Your task to perform on an android device: toggle pop-ups in chrome Image 0: 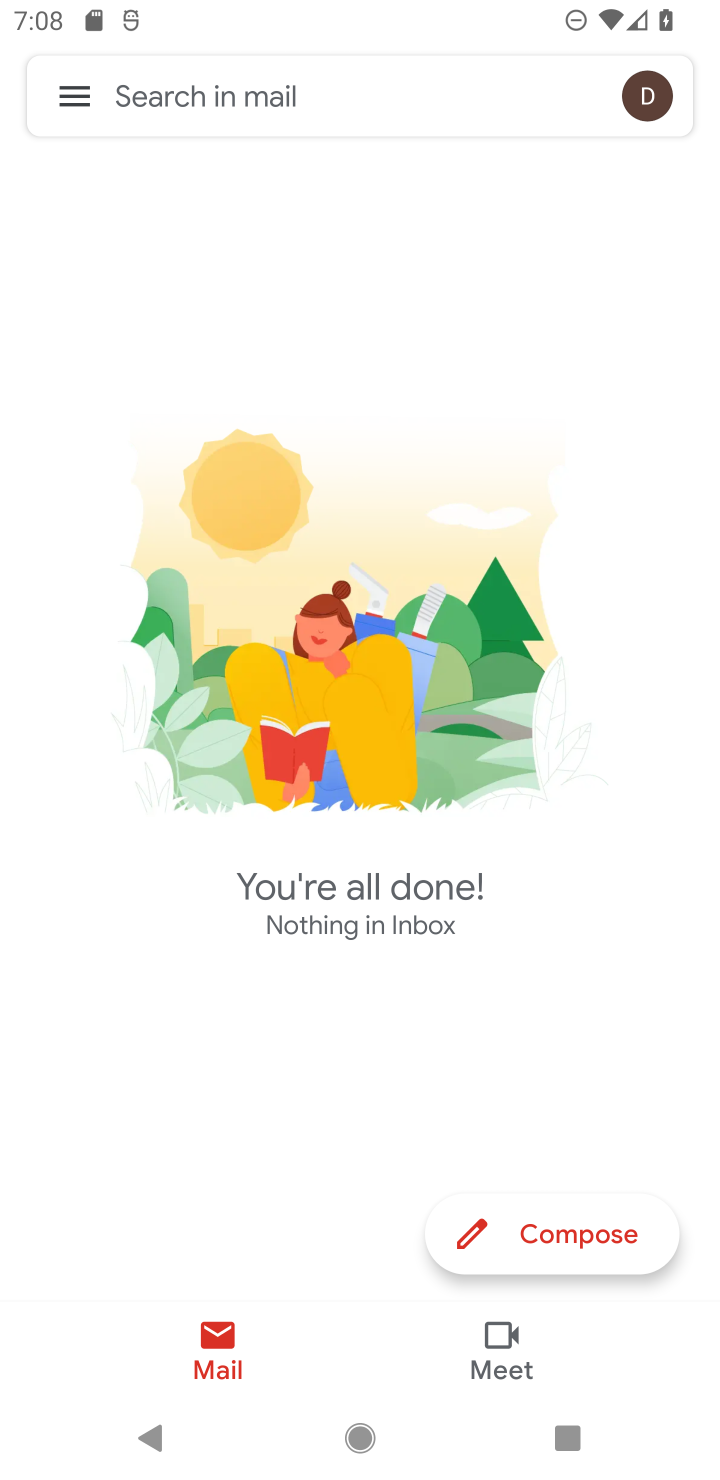
Step 0: press home button
Your task to perform on an android device: toggle pop-ups in chrome Image 1: 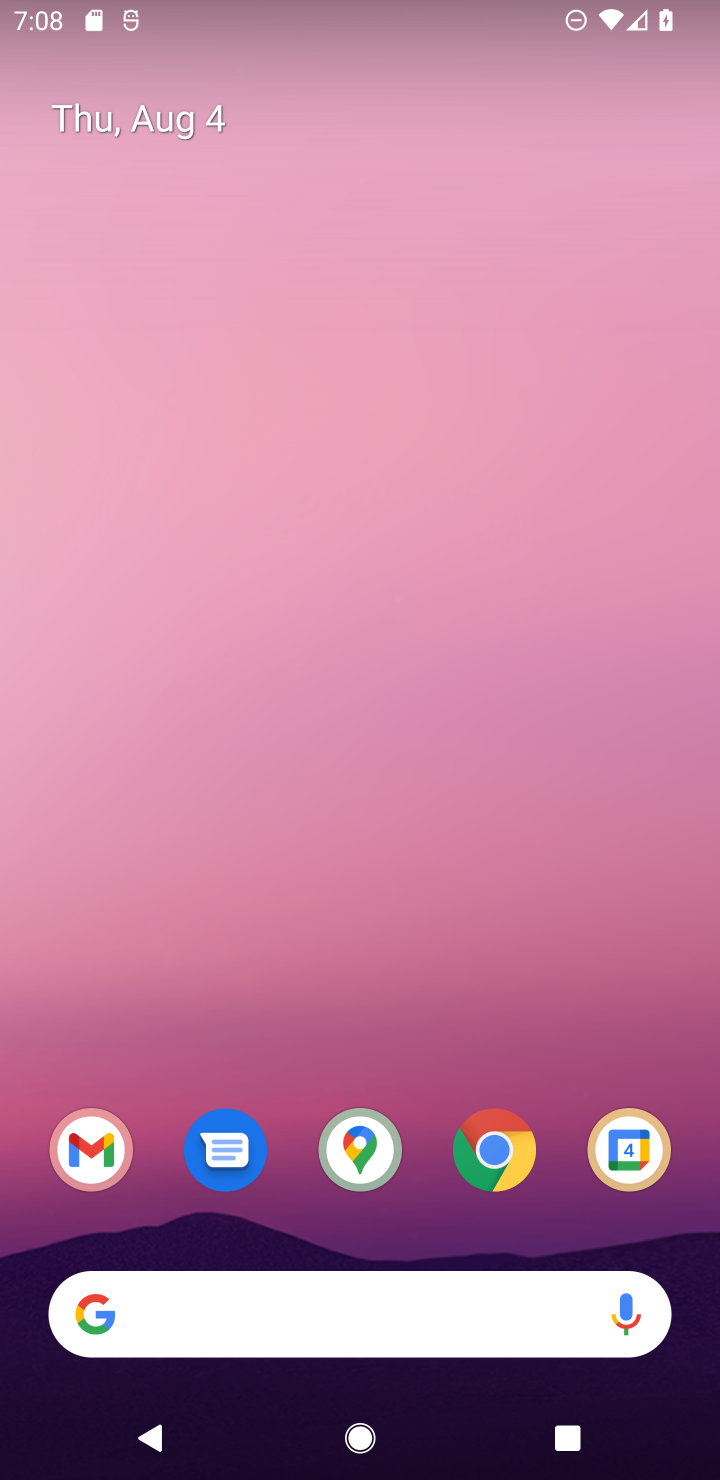
Step 1: drag from (378, 1120) to (539, 75)
Your task to perform on an android device: toggle pop-ups in chrome Image 2: 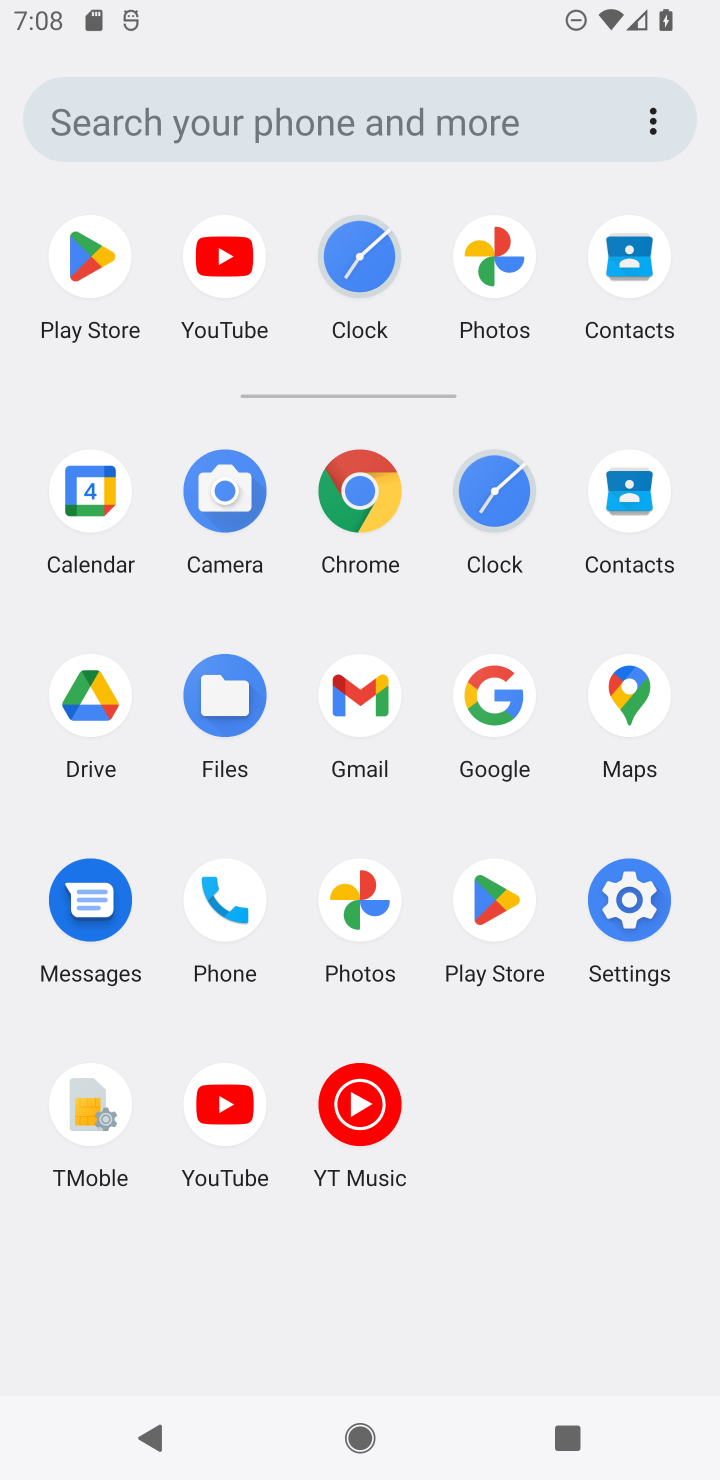
Step 2: click (362, 489)
Your task to perform on an android device: toggle pop-ups in chrome Image 3: 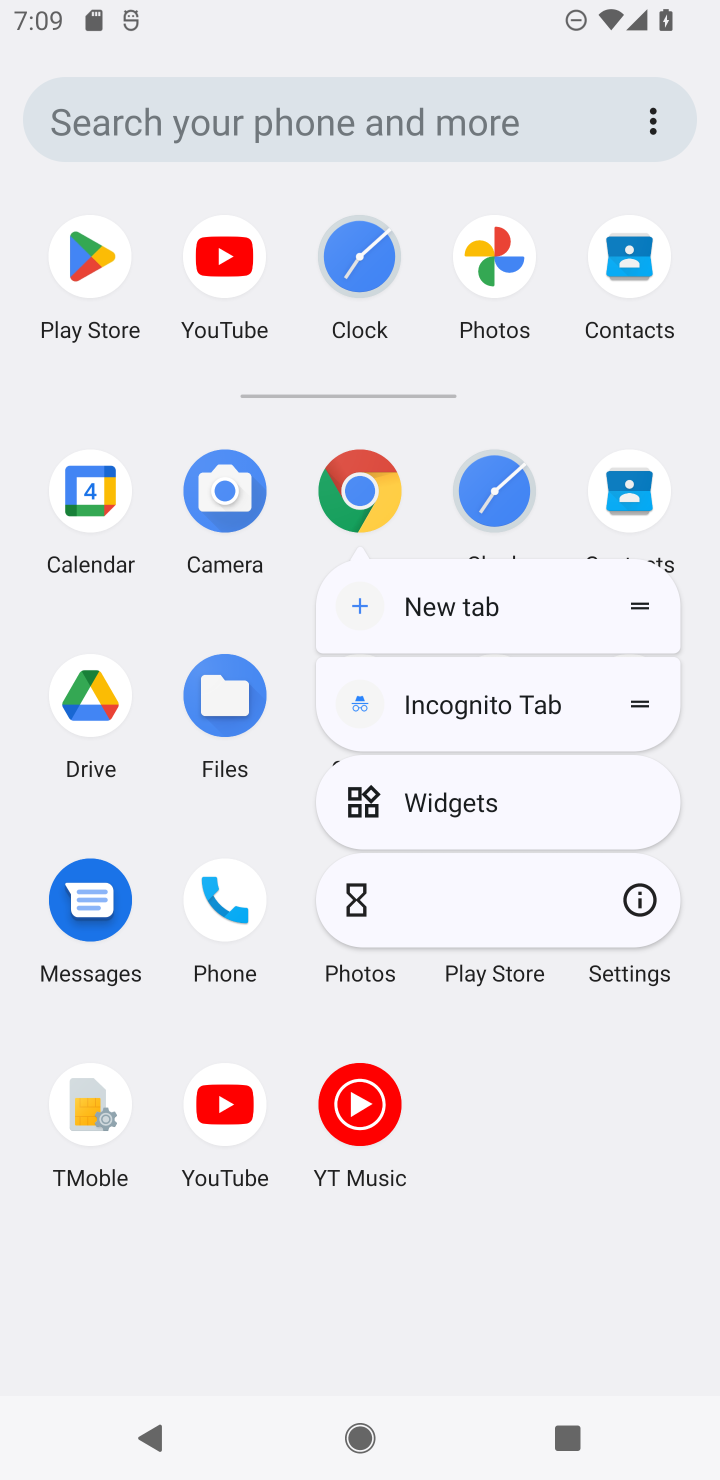
Step 3: click (362, 489)
Your task to perform on an android device: toggle pop-ups in chrome Image 4: 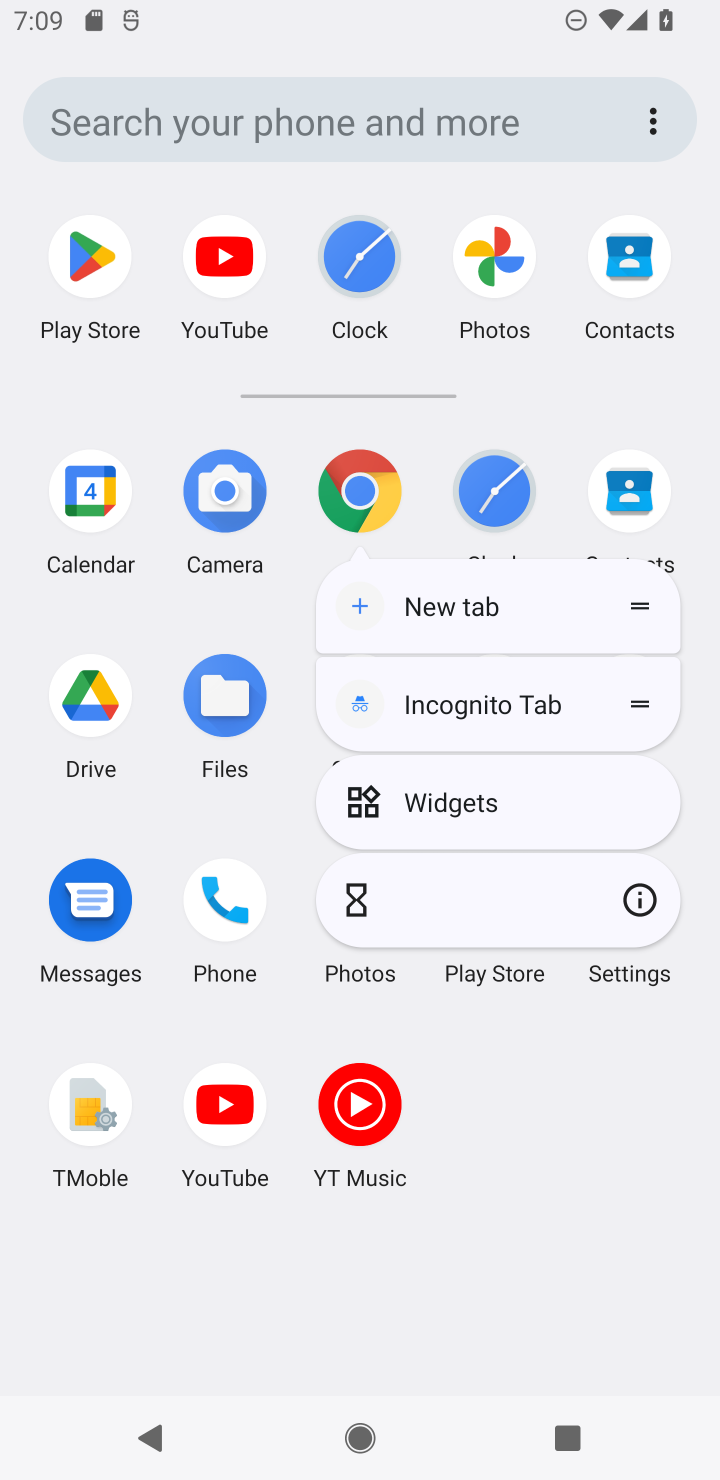
Step 4: click (382, 472)
Your task to perform on an android device: toggle pop-ups in chrome Image 5: 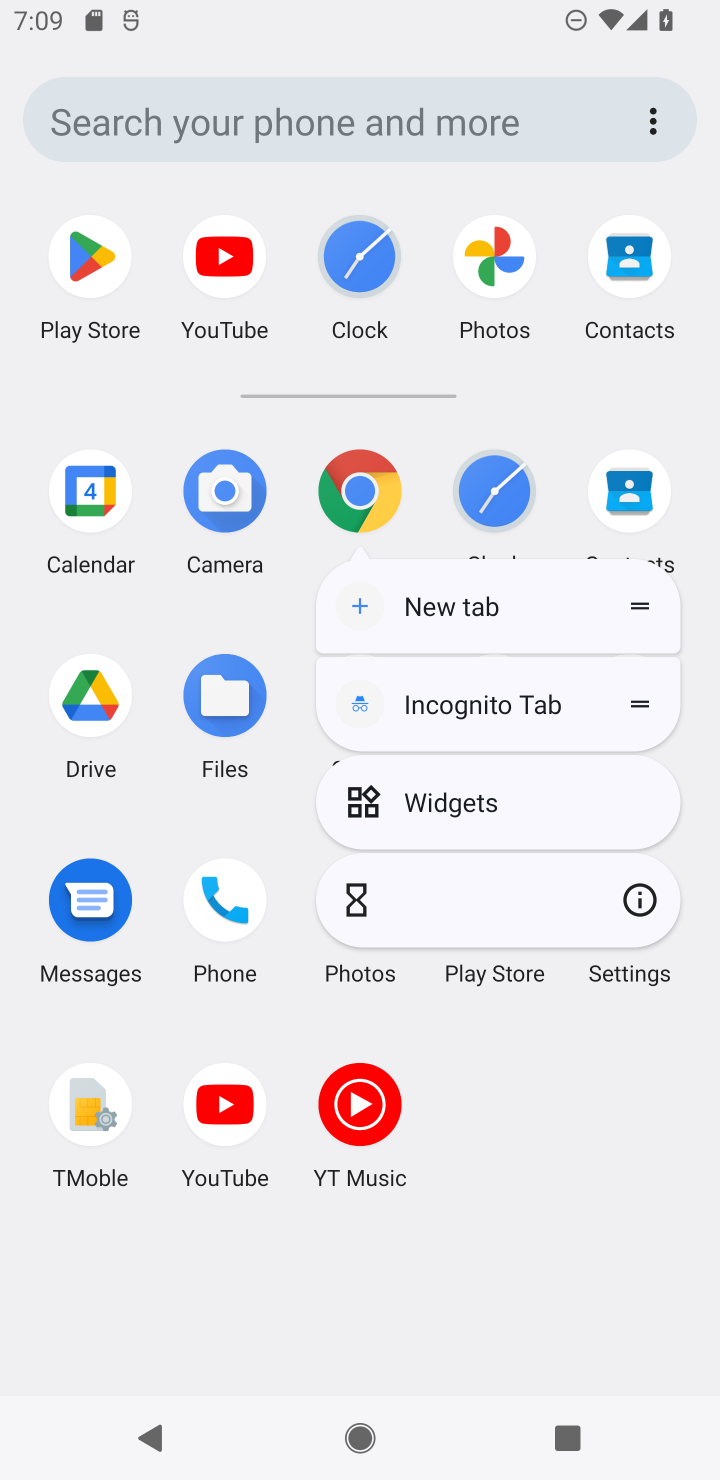
Step 5: click (339, 492)
Your task to perform on an android device: toggle pop-ups in chrome Image 6: 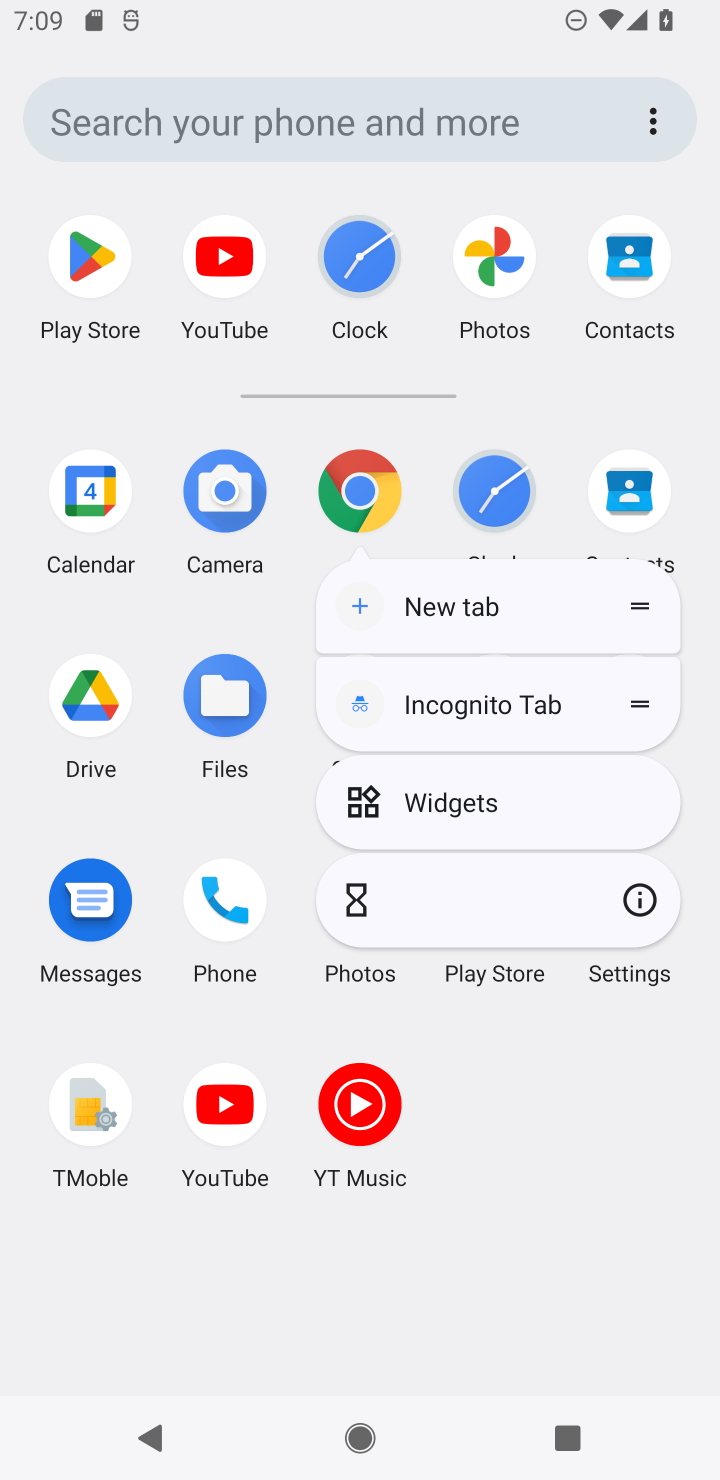
Step 6: click (362, 483)
Your task to perform on an android device: toggle pop-ups in chrome Image 7: 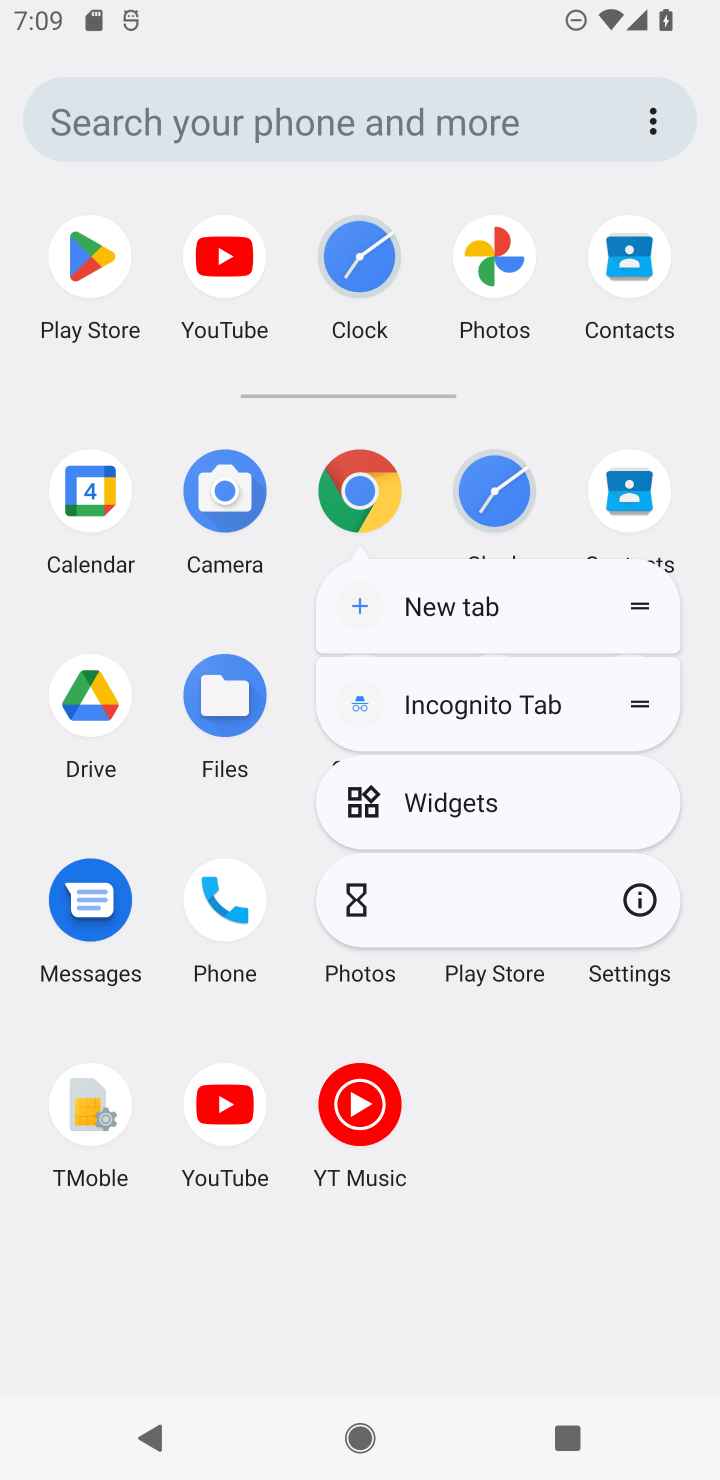
Step 7: click (362, 483)
Your task to perform on an android device: toggle pop-ups in chrome Image 8: 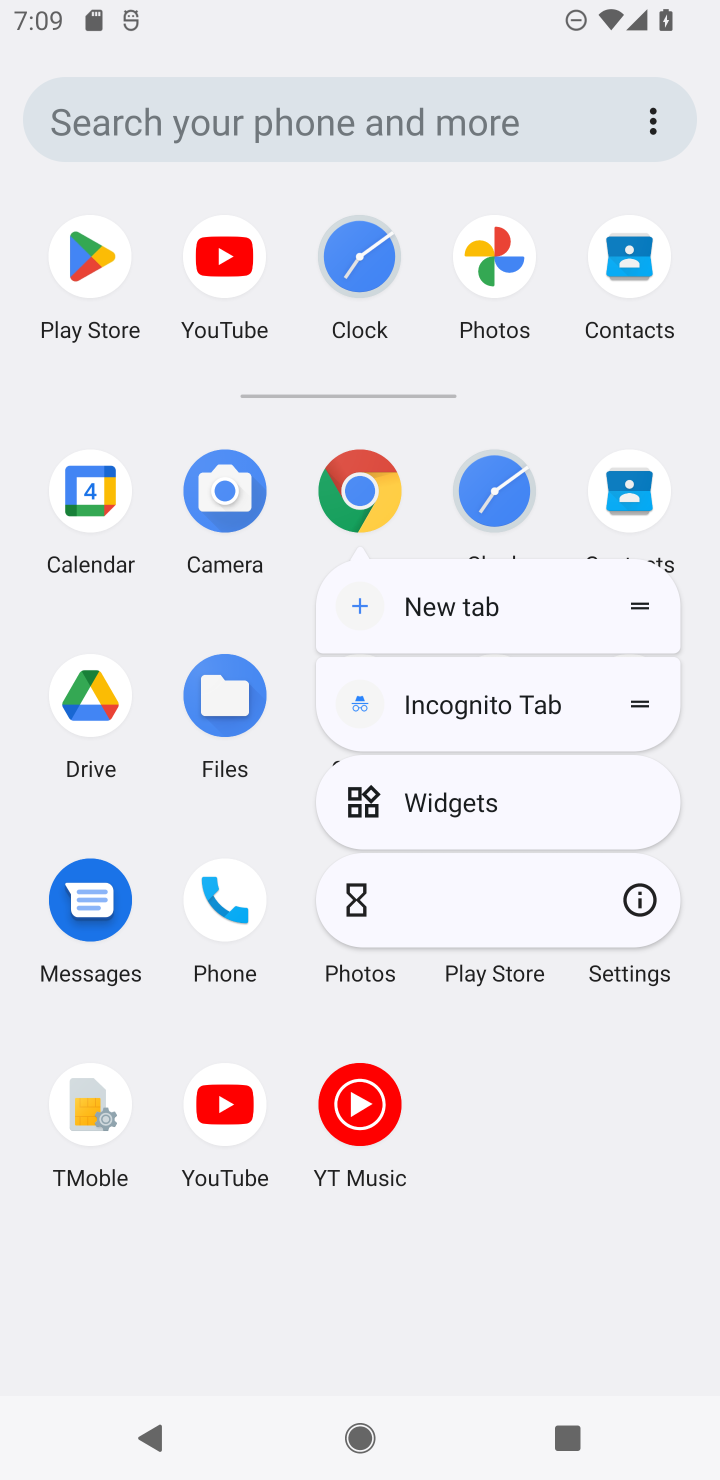
Step 8: click (388, 579)
Your task to perform on an android device: toggle pop-ups in chrome Image 9: 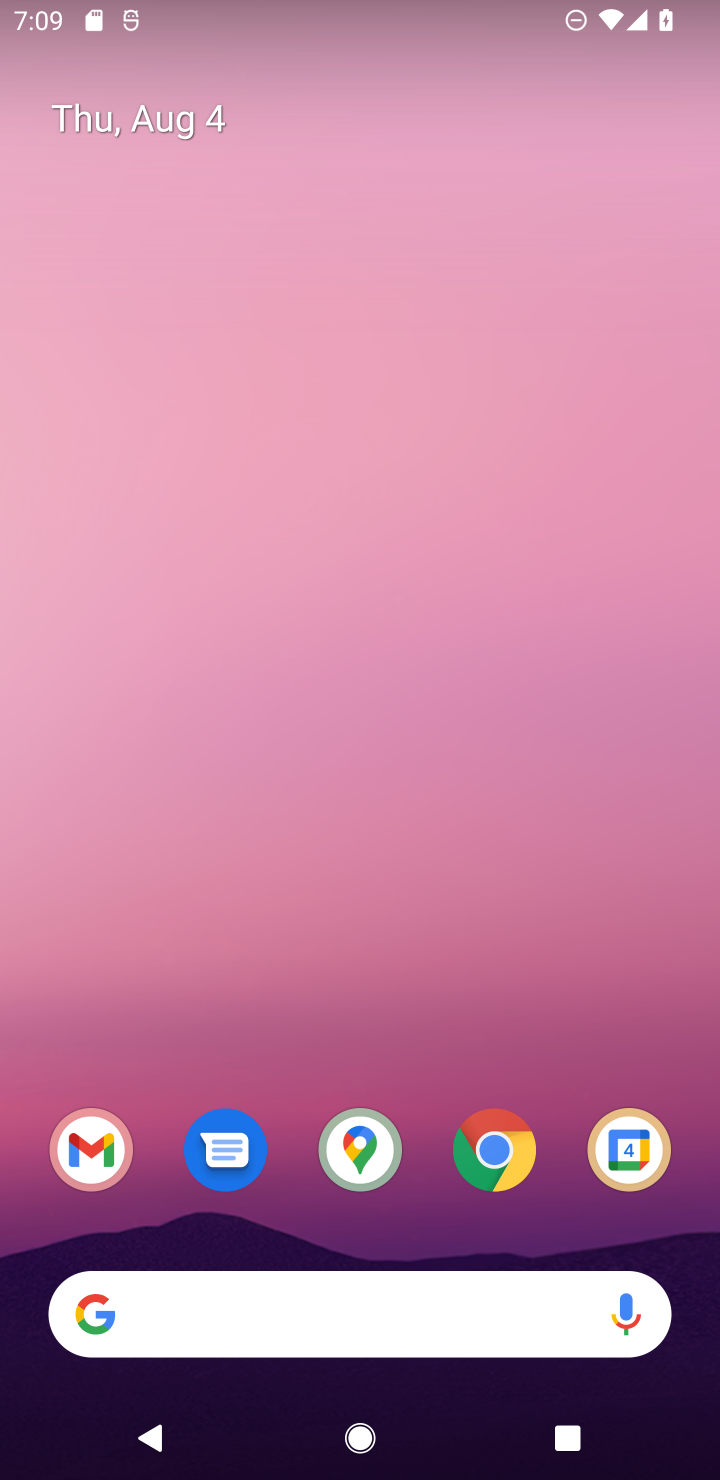
Step 9: click (485, 1177)
Your task to perform on an android device: toggle pop-ups in chrome Image 10: 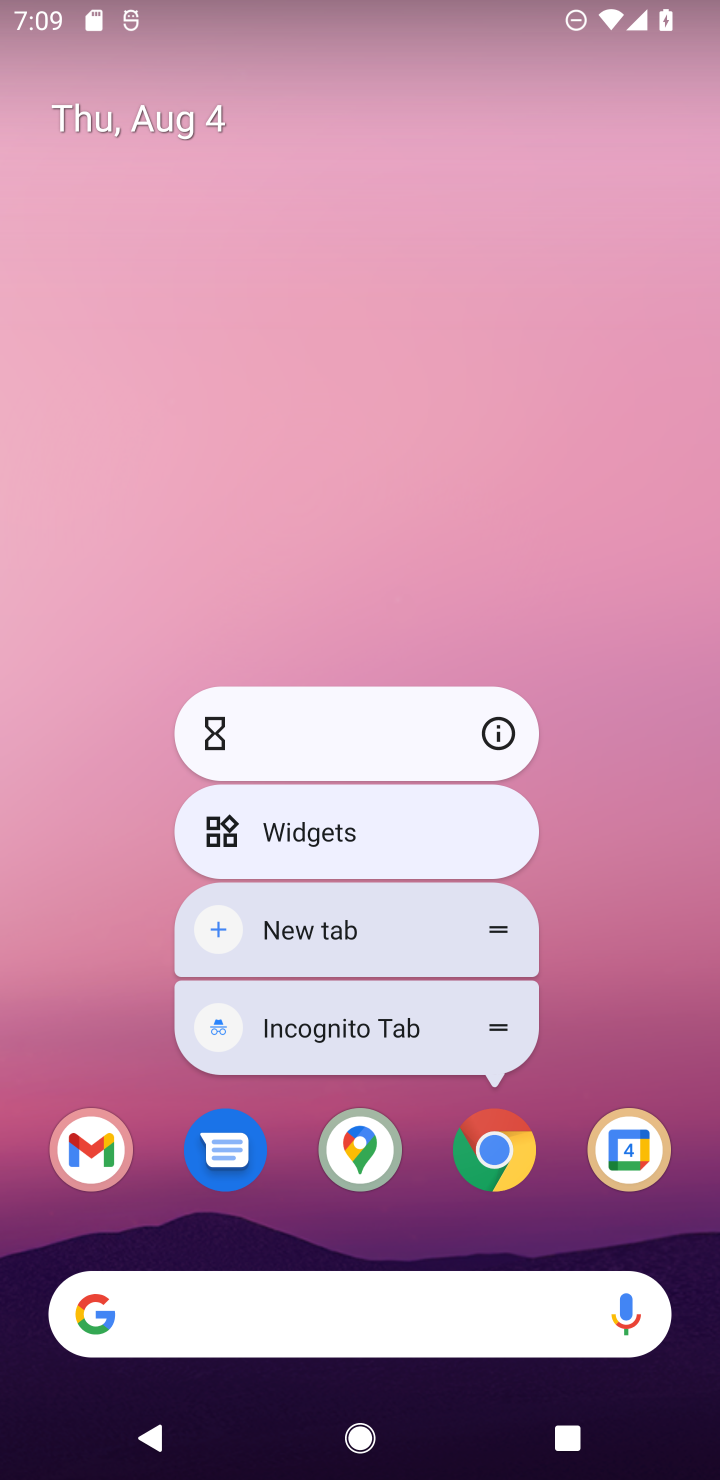
Step 10: click (496, 1160)
Your task to perform on an android device: toggle pop-ups in chrome Image 11: 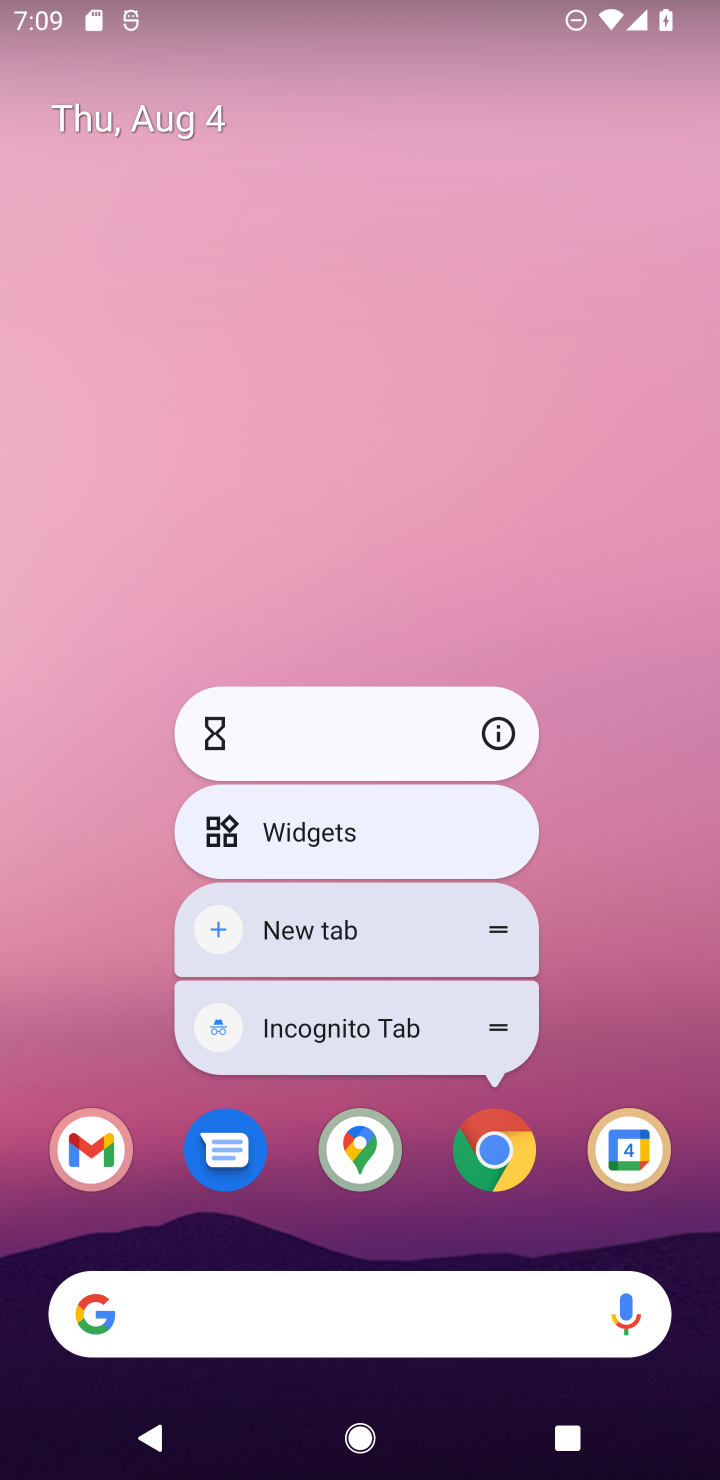
Step 11: click (503, 1145)
Your task to perform on an android device: toggle pop-ups in chrome Image 12: 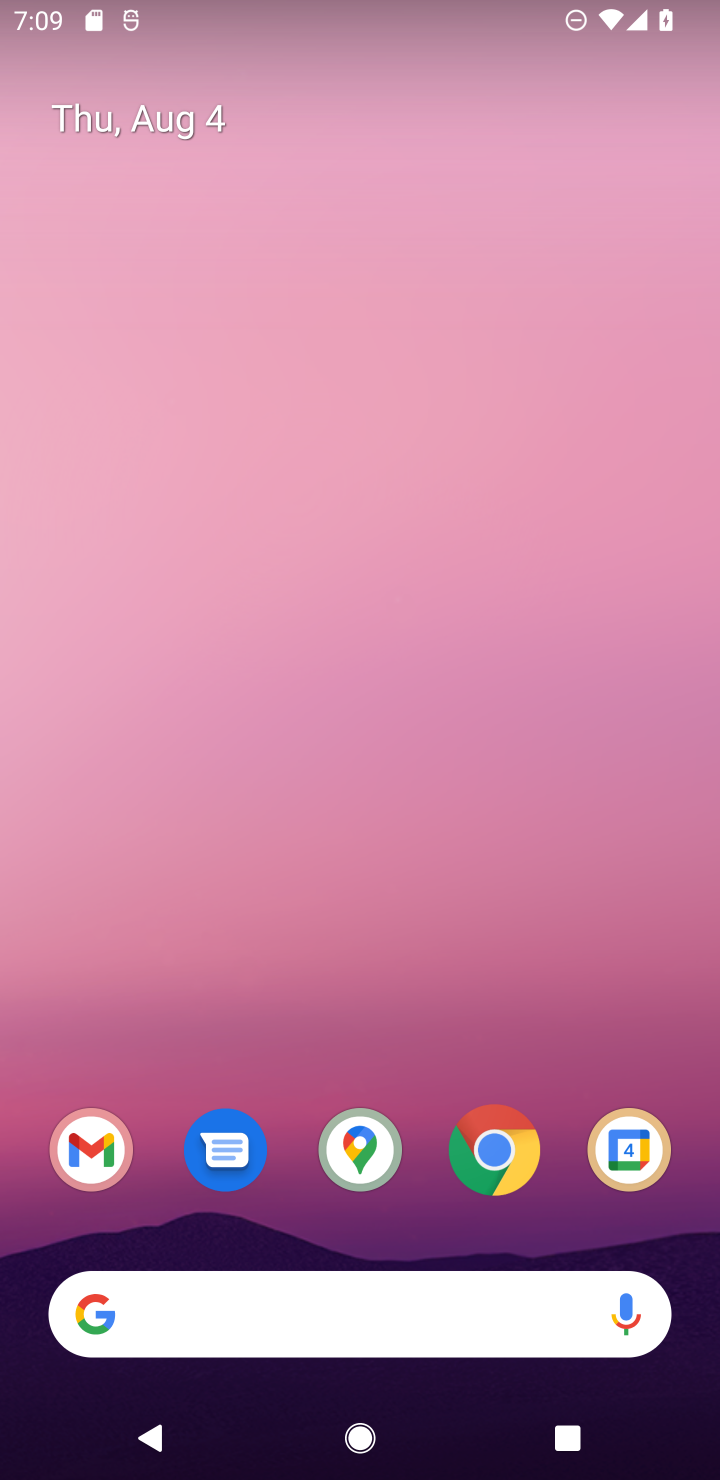
Step 12: click (488, 1155)
Your task to perform on an android device: toggle pop-ups in chrome Image 13: 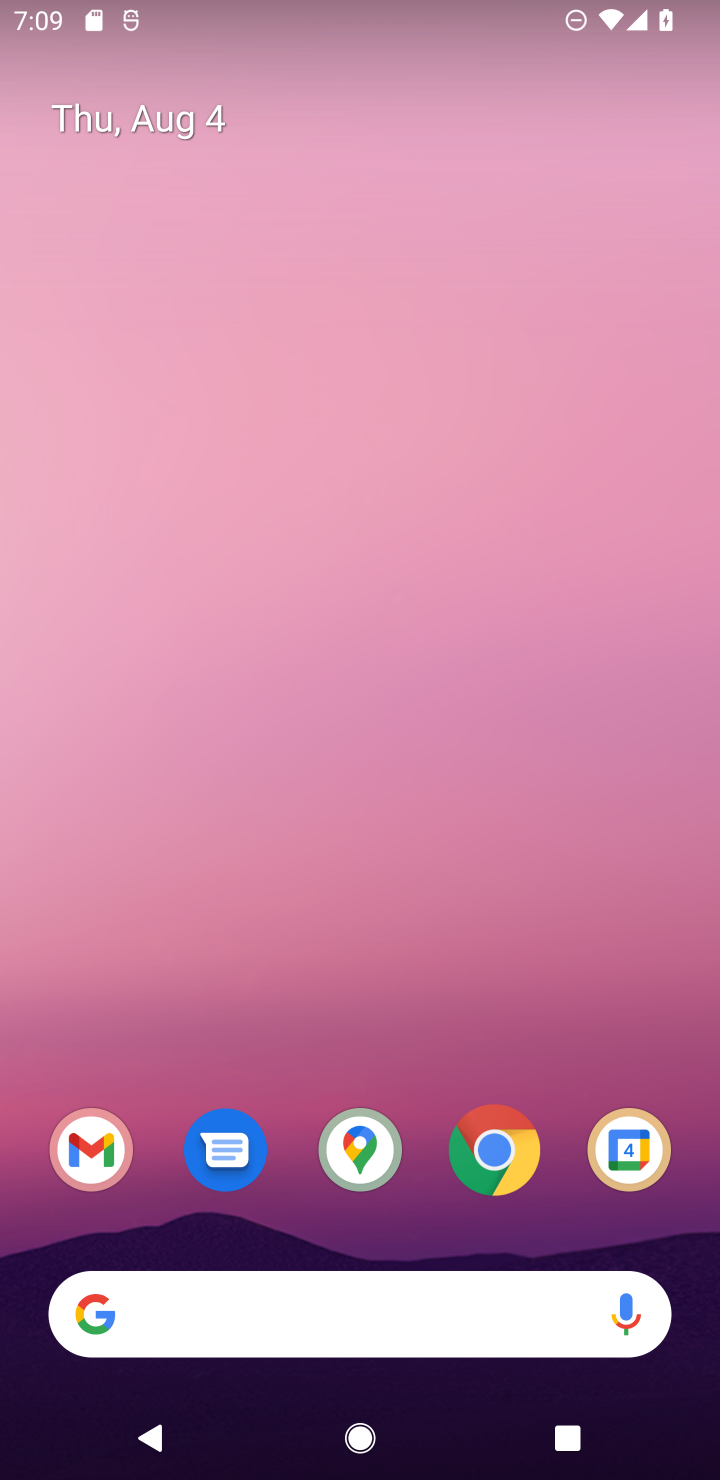
Step 13: click (459, 1180)
Your task to perform on an android device: toggle pop-ups in chrome Image 14: 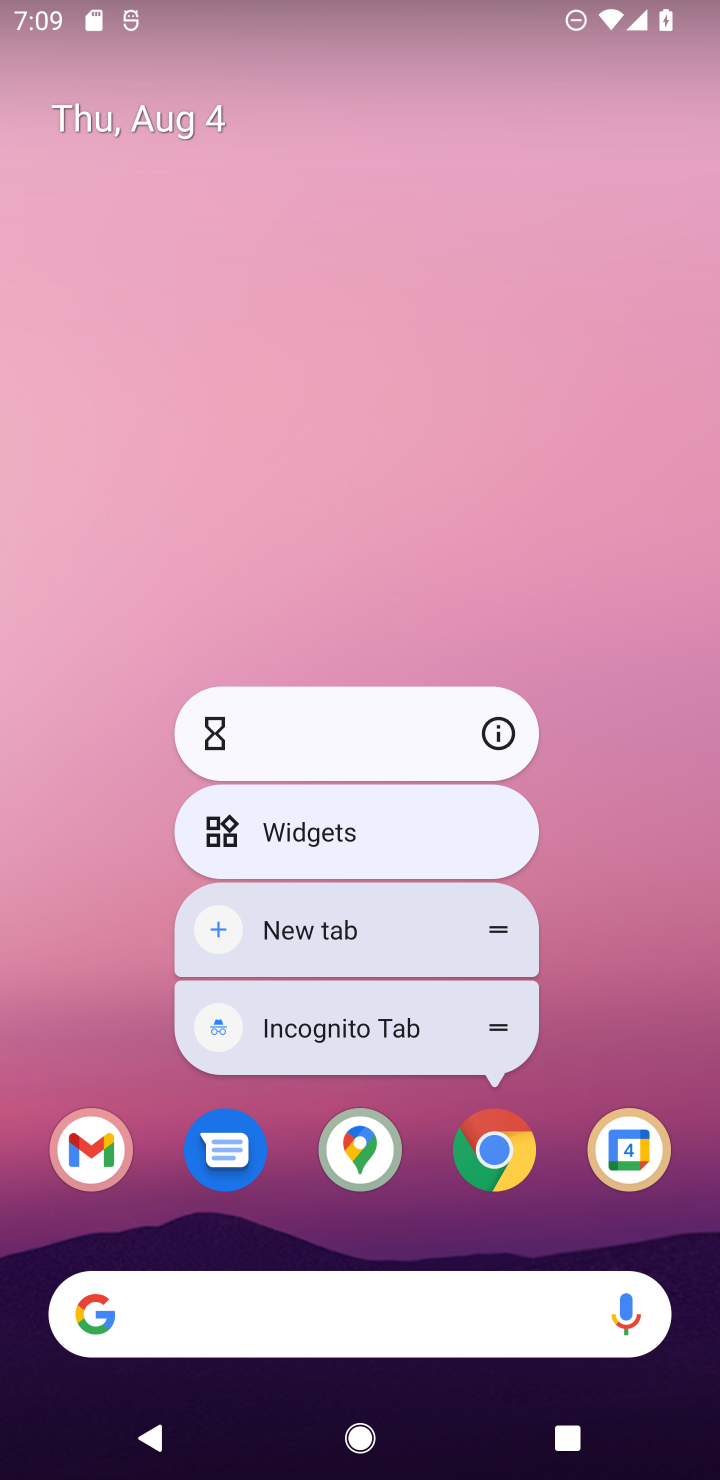
Step 14: click (512, 1155)
Your task to perform on an android device: toggle pop-ups in chrome Image 15: 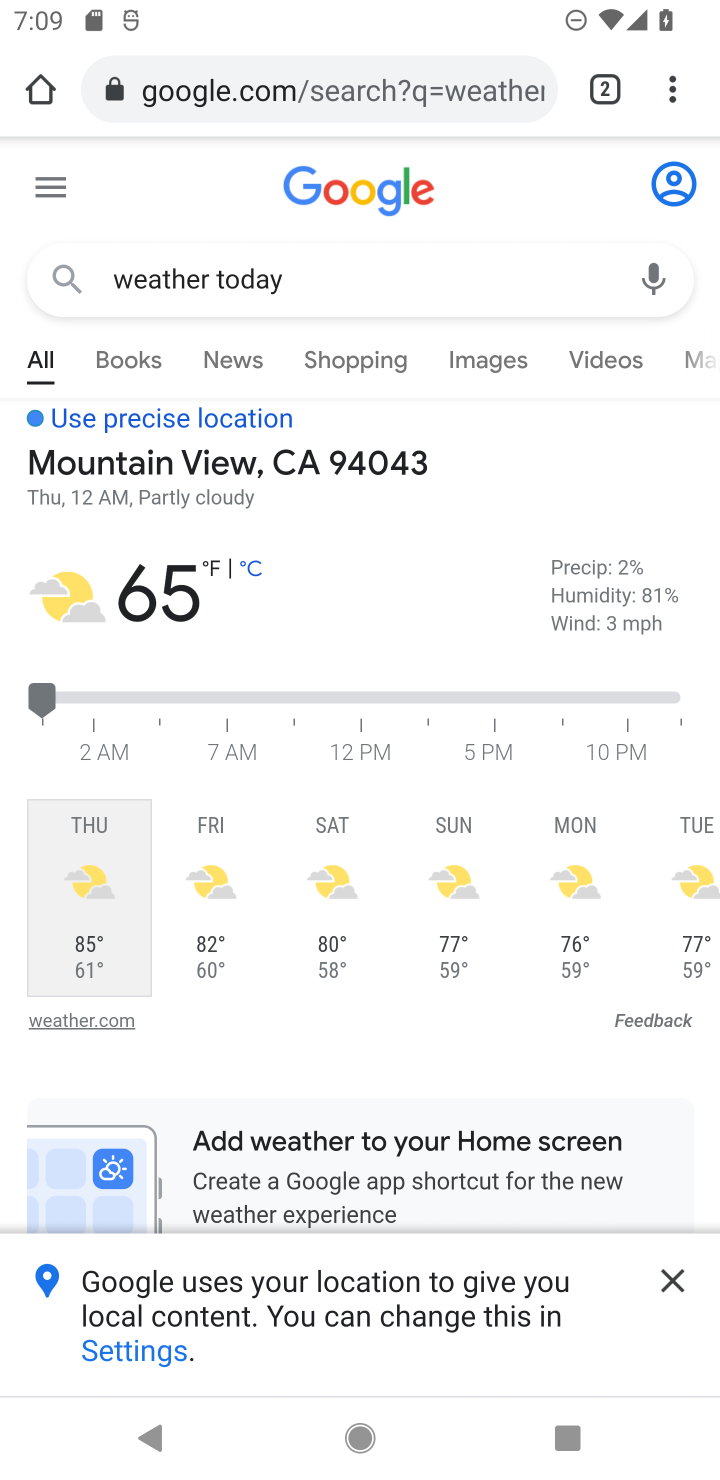
Step 15: click (662, 79)
Your task to perform on an android device: toggle pop-ups in chrome Image 16: 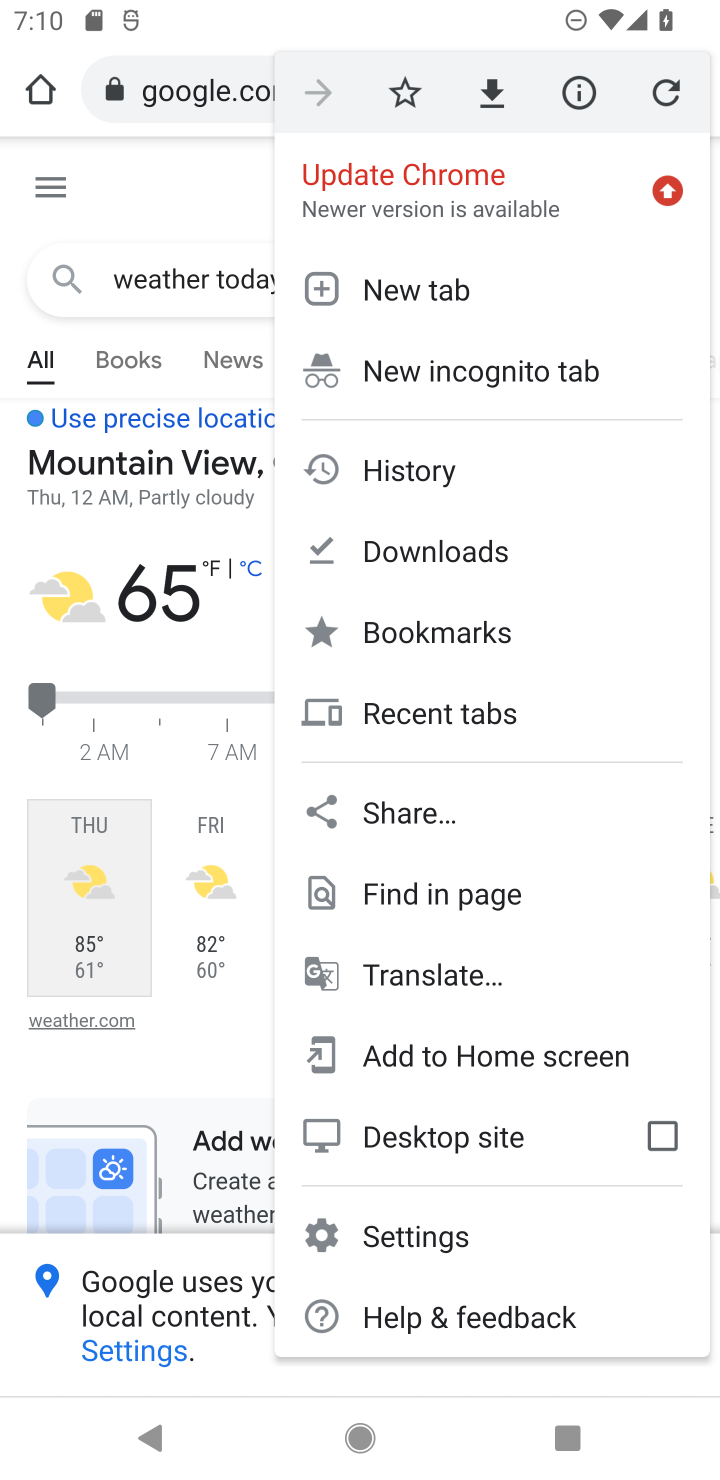
Step 16: click (406, 1232)
Your task to perform on an android device: toggle pop-ups in chrome Image 17: 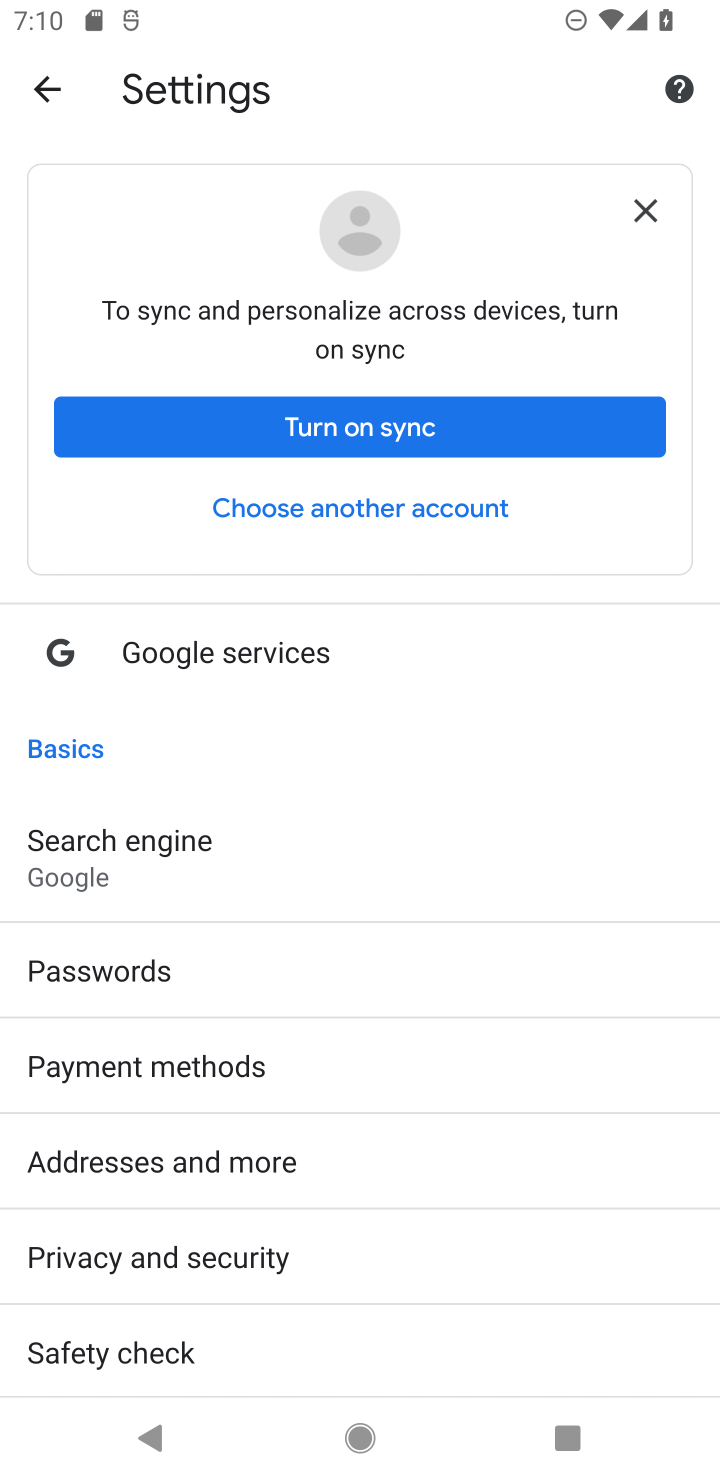
Step 17: drag from (303, 1347) to (156, 938)
Your task to perform on an android device: toggle pop-ups in chrome Image 18: 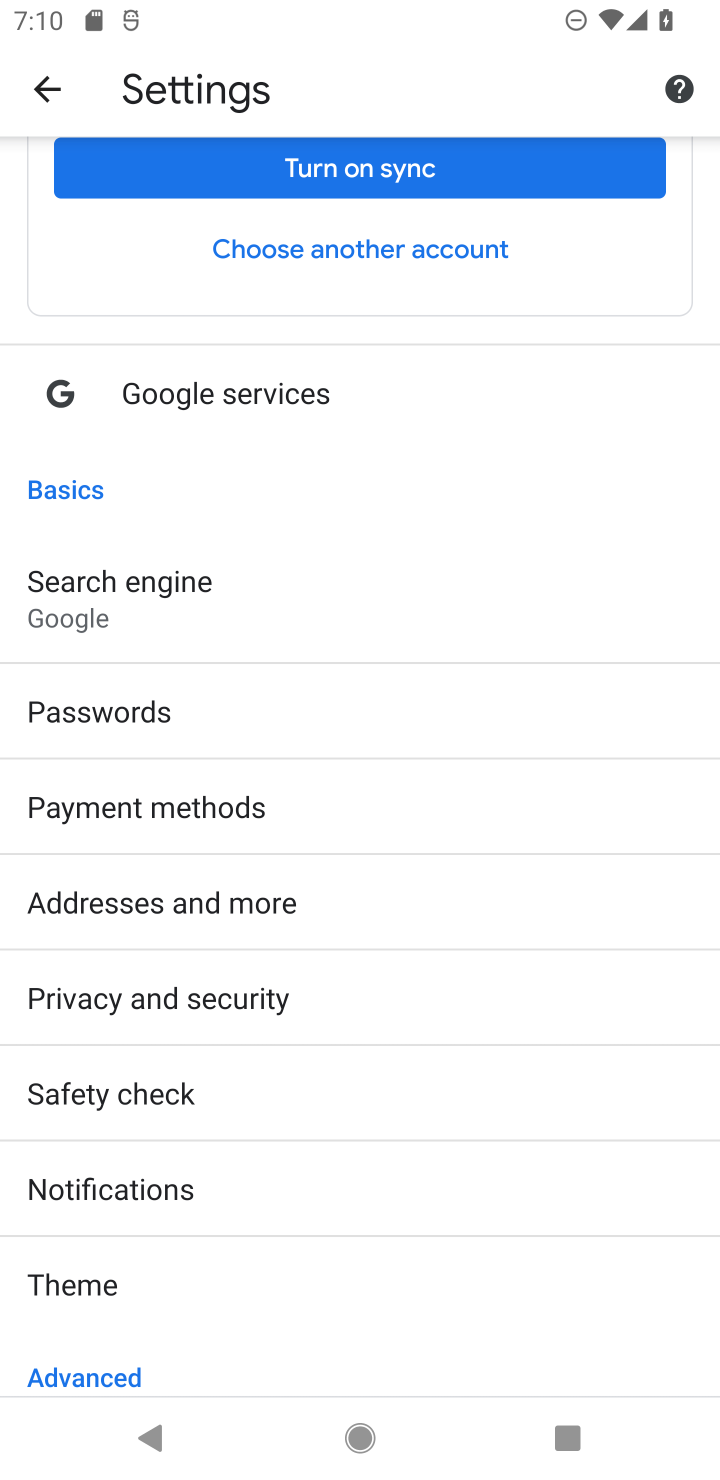
Step 18: drag from (256, 1328) to (236, 435)
Your task to perform on an android device: toggle pop-ups in chrome Image 19: 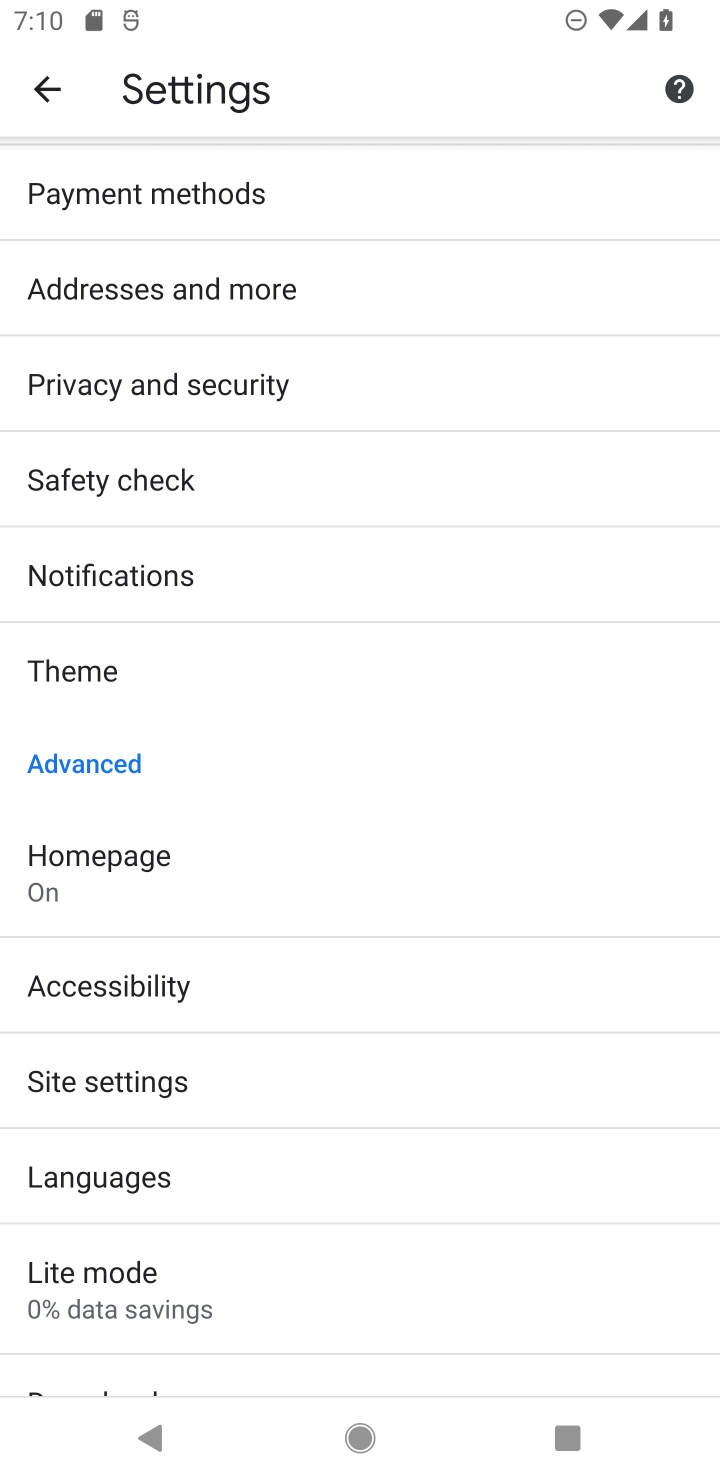
Step 19: click (139, 1095)
Your task to perform on an android device: toggle pop-ups in chrome Image 20: 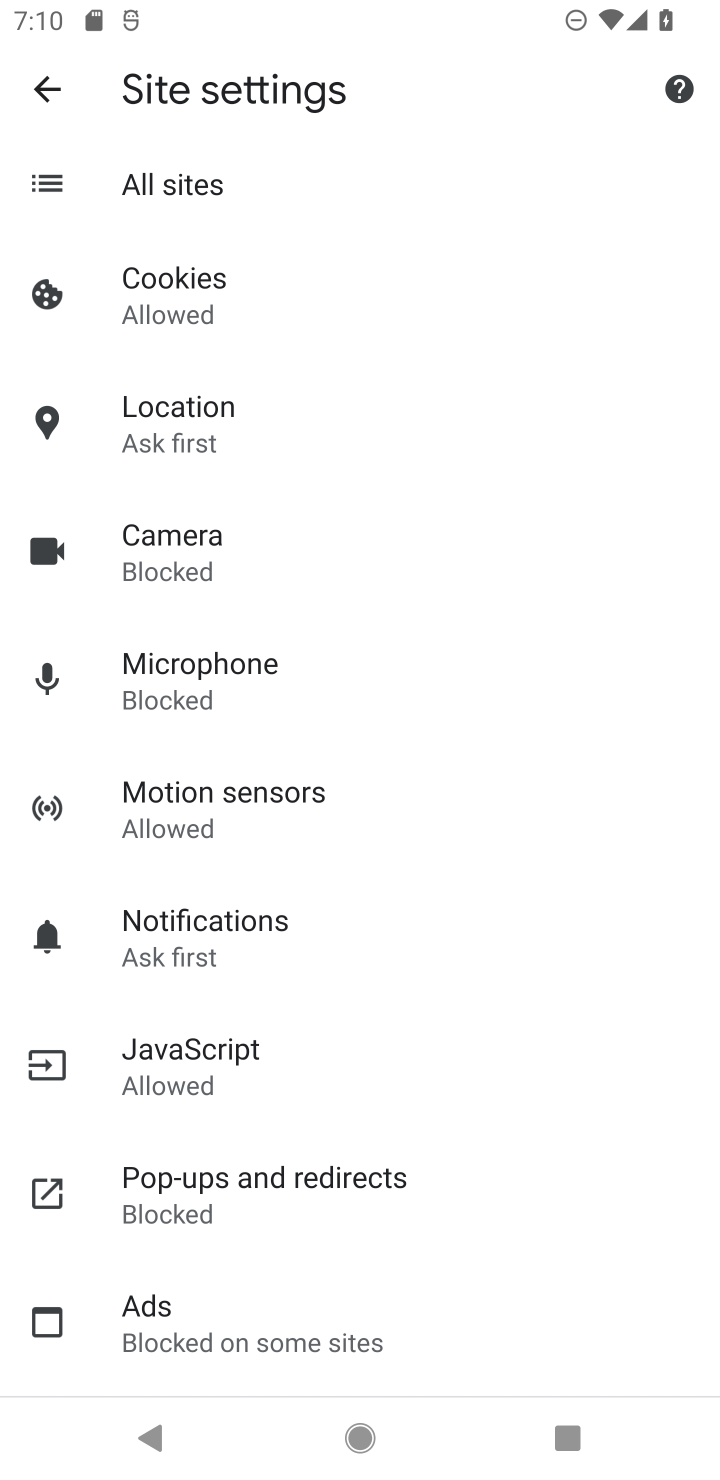
Step 20: click (228, 1190)
Your task to perform on an android device: toggle pop-ups in chrome Image 21: 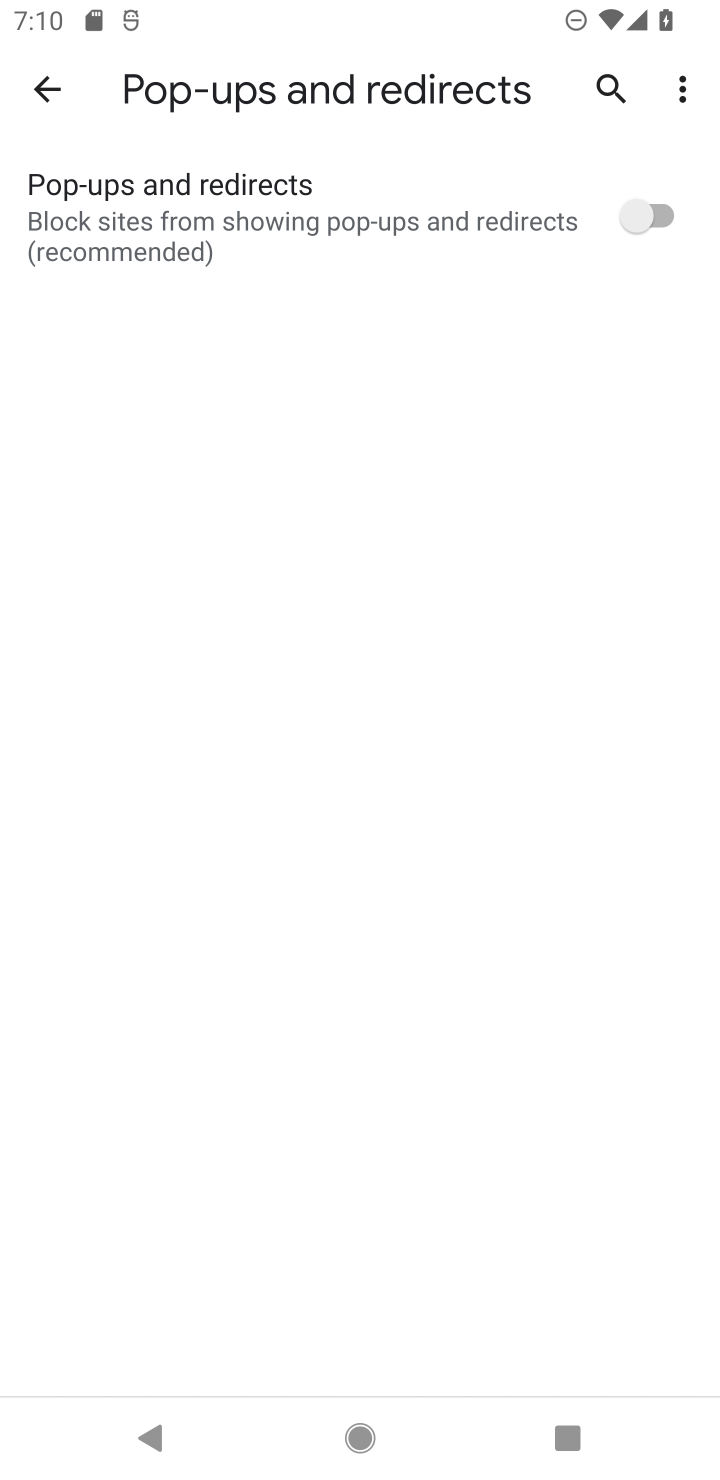
Step 21: click (661, 214)
Your task to perform on an android device: toggle pop-ups in chrome Image 22: 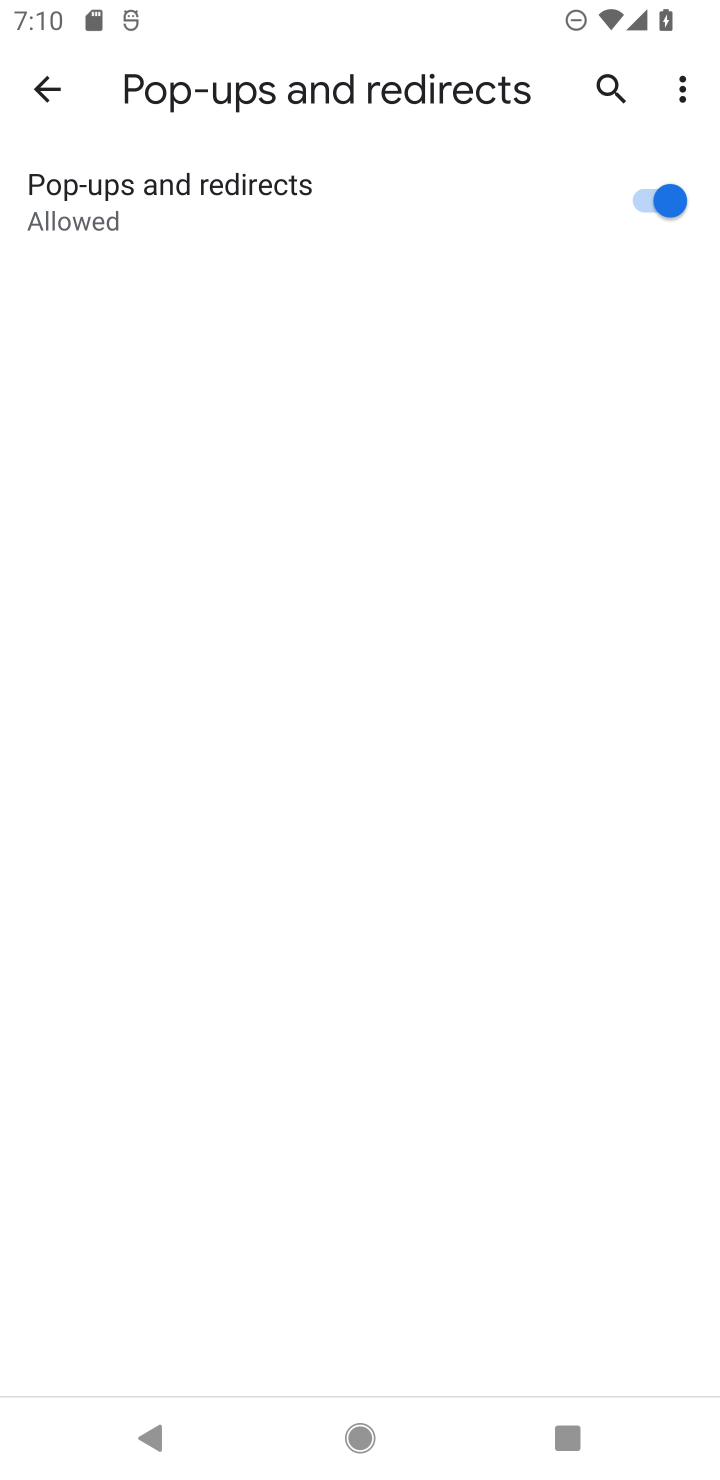
Step 22: task complete